Your task to perform on an android device: check google app version Image 0: 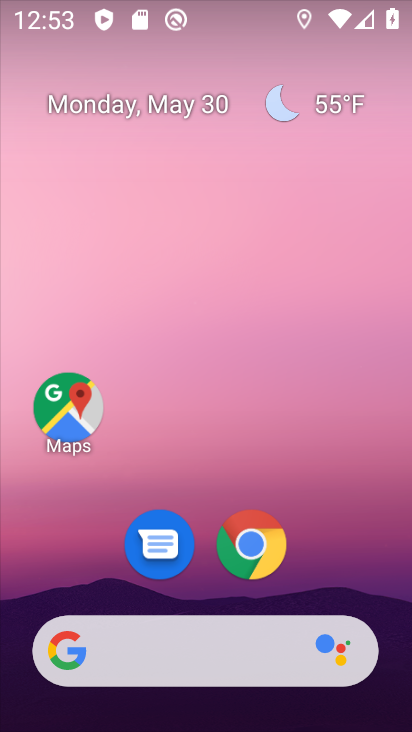
Step 0: drag from (325, 582) to (285, 118)
Your task to perform on an android device: check google app version Image 1: 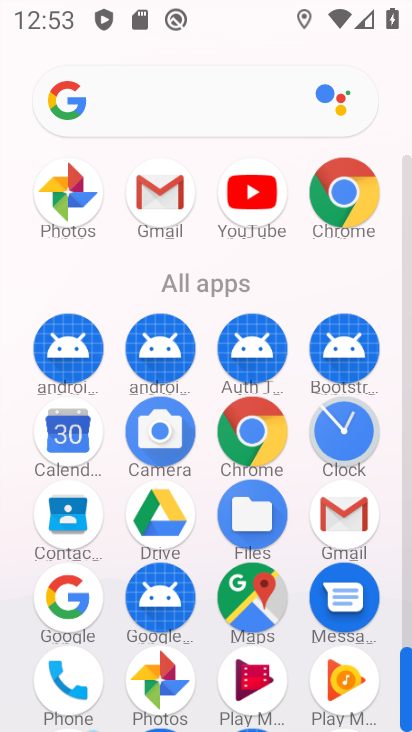
Step 1: click (65, 590)
Your task to perform on an android device: check google app version Image 2: 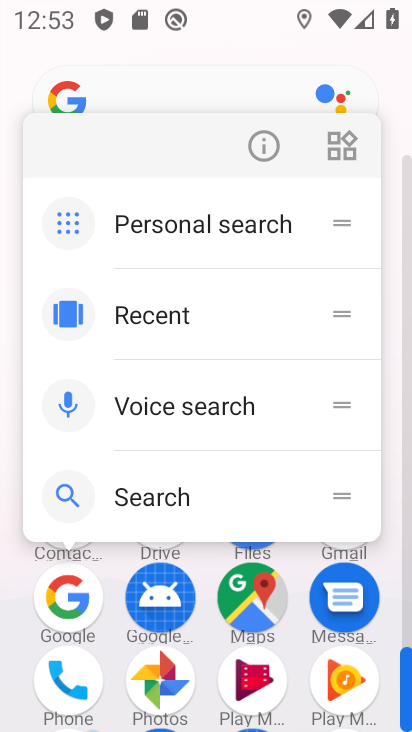
Step 2: click (278, 146)
Your task to perform on an android device: check google app version Image 3: 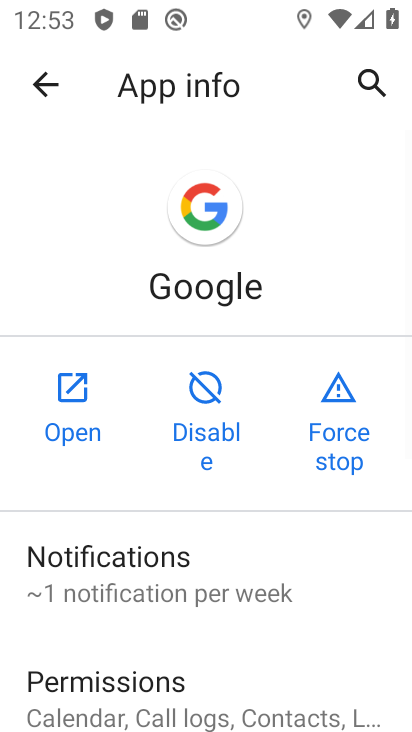
Step 3: drag from (283, 680) to (248, 330)
Your task to perform on an android device: check google app version Image 4: 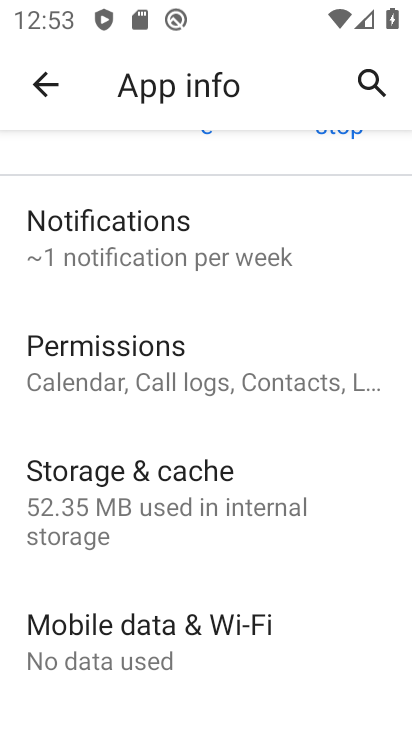
Step 4: drag from (216, 567) to (176, 49)
Your task to perform on an android device: check google app version Image 5: 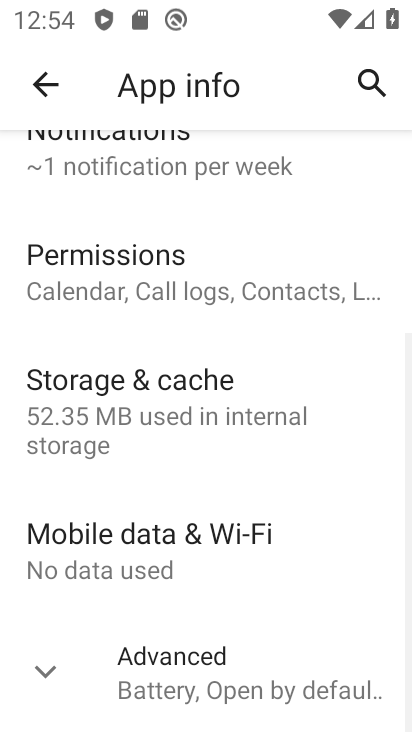
Step 5: click (173, 677)
Your task to perform on an android device: check google app version Image 6: 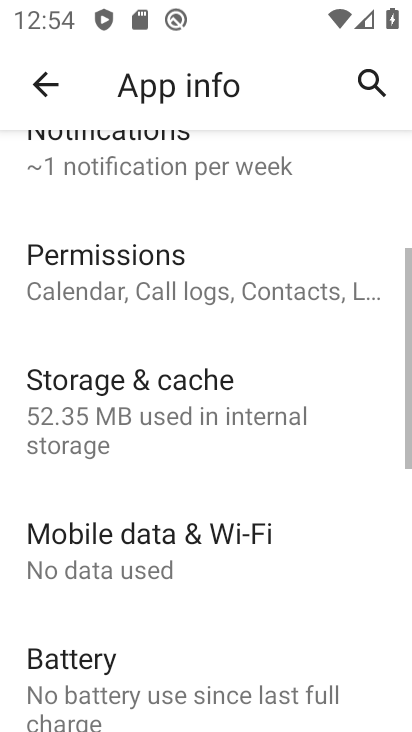
Step 6: task complete